Your task to perform on an android device: Turn off the flashlight Image 0: 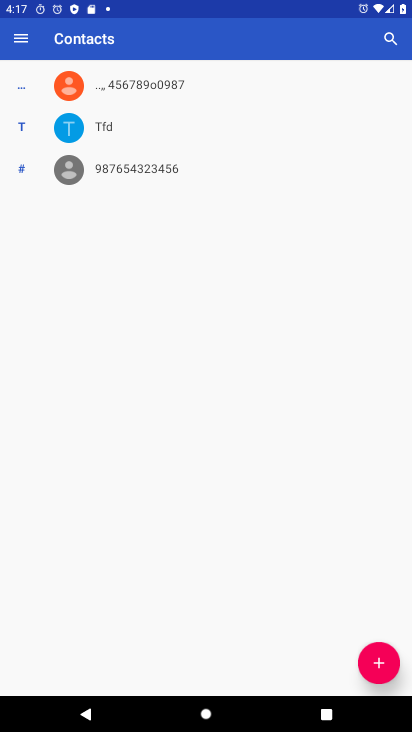
Step 0: press home button
Your task to perform on an android device: Turn off the flashlight Image 1: 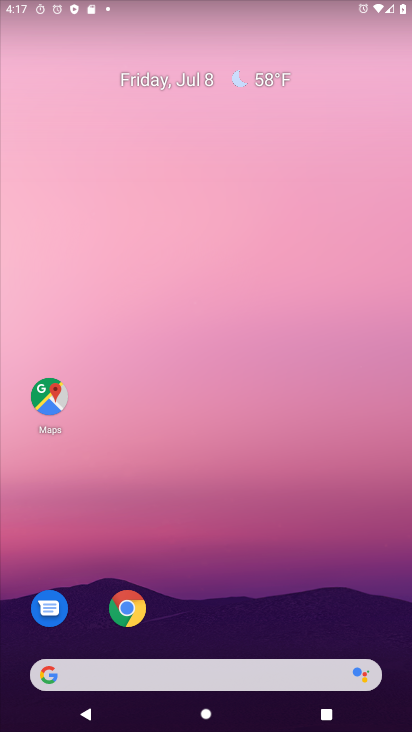
Step 1: drag from (247, 591) to (212, 56)
Your task to perform on an android device: Turn off the flashlight Image 2: 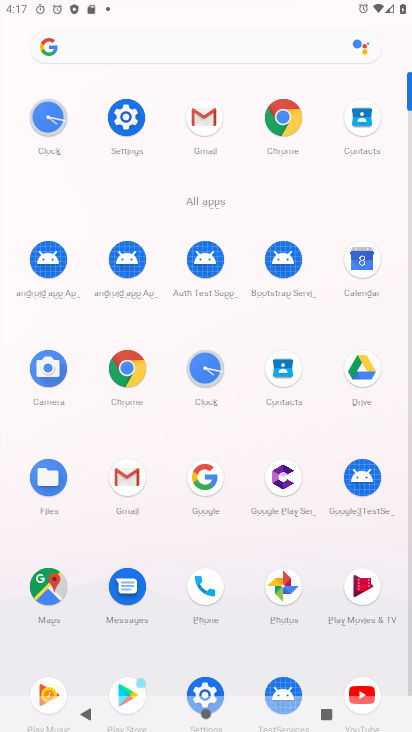
Step 2: click (124, 121)
Your task to perform on an android device: Turn off the flashlight Image 3: 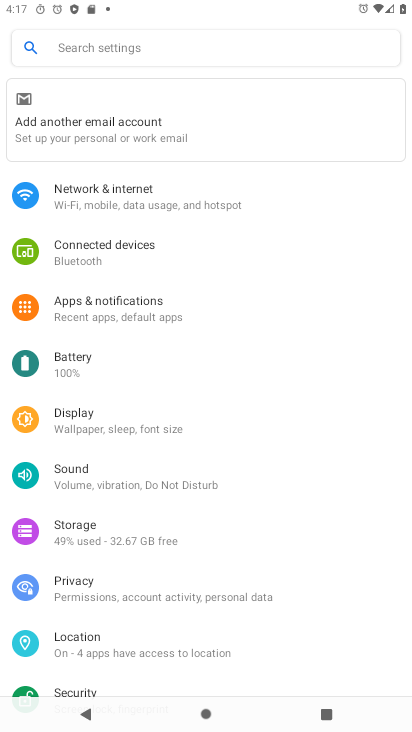
Step 3: task complete